Your task to perform on an android device: When is my next appointment? Image 0: 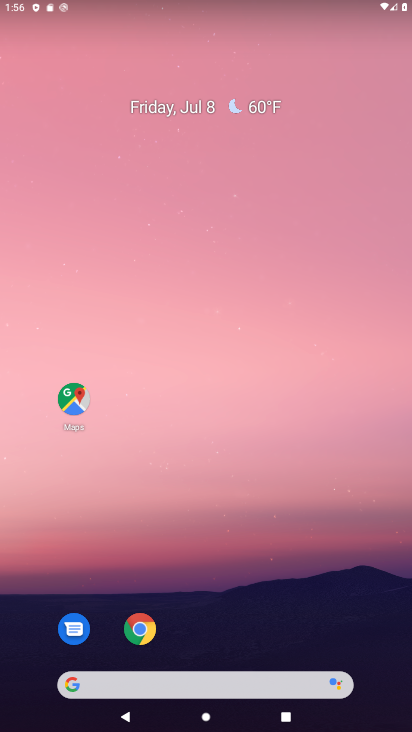
Step 0: drag from (220, 633) to (171, 172)
Your task to perform on an android device: When is my next appointment? Image 1: 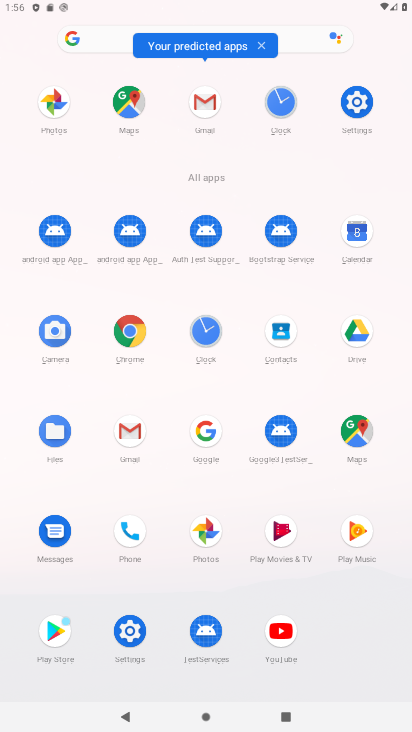
Step 1: click (344, 251)
Your task to perform on an android device: When is my next appointment? Image 2: 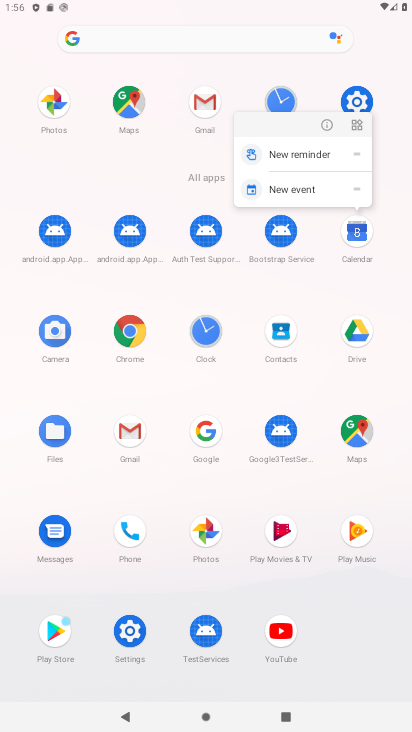
Step 2: click (360, 233)
Your task to perform on an android device: When is my next appointment? Image 3: 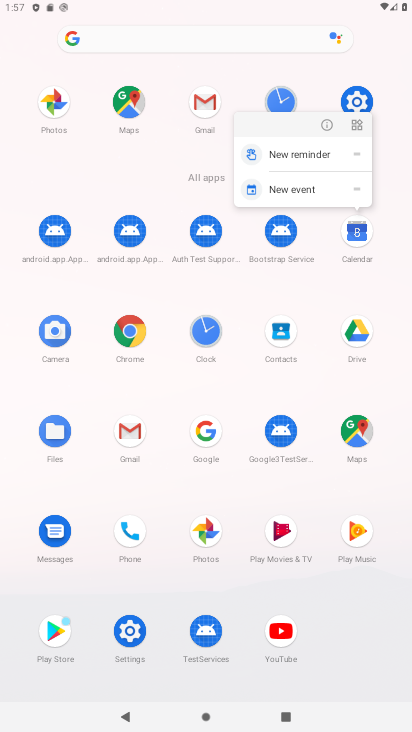
Step 3: click (356, 232)
Your task to perform on an android device: When is my next appointment? Image 4: 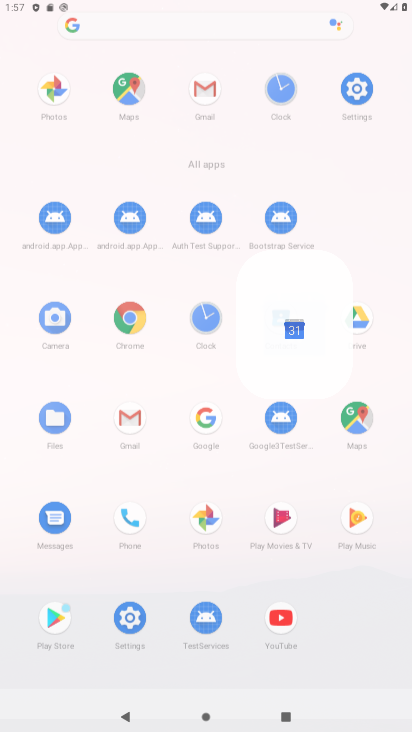
Step 4: click (348, 245)
Your task to perform on an android device: When is my next appointment? Image 5: 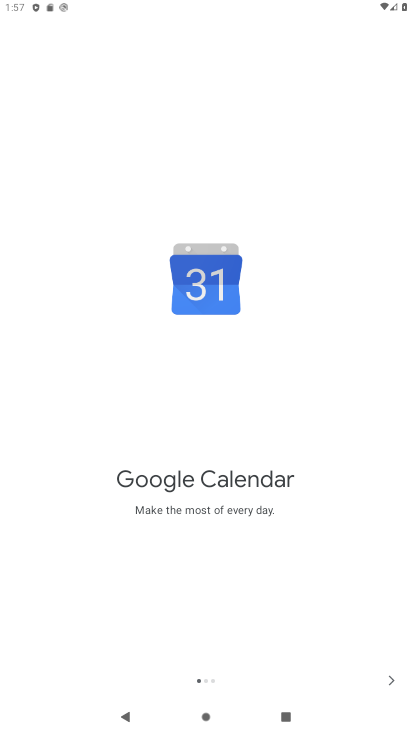
Step 5: click (383, 681)
Your task to perform on an android device: When is my next appointment? Image 6: 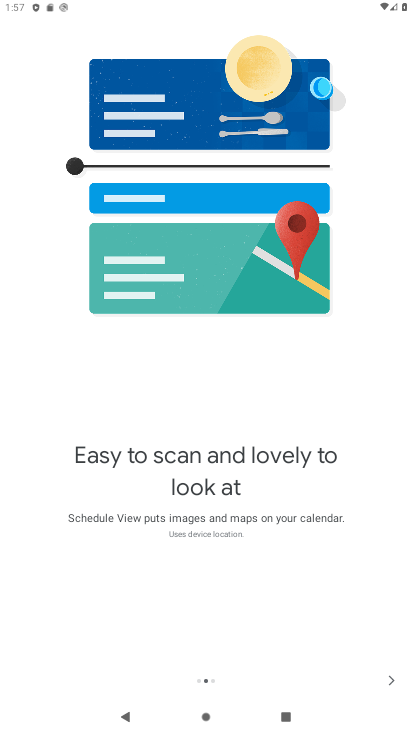
Step 6: click (383, 681)
Your task to perform on an android device: When is my next appointment? Image 7: 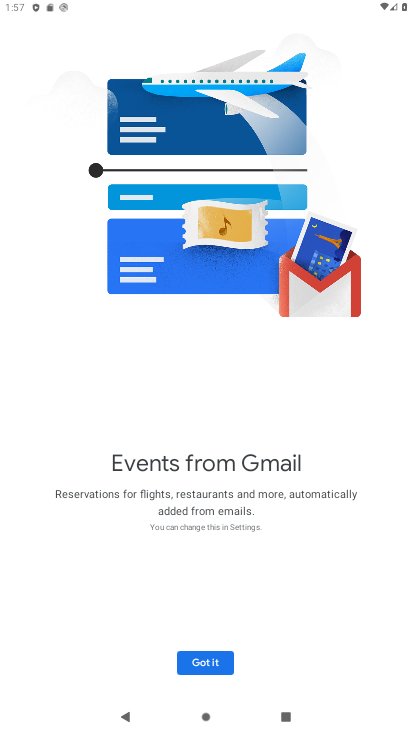
Step 7: click (220, 667)
Your task to perform on an android device: When is my next appointment? Image 8: 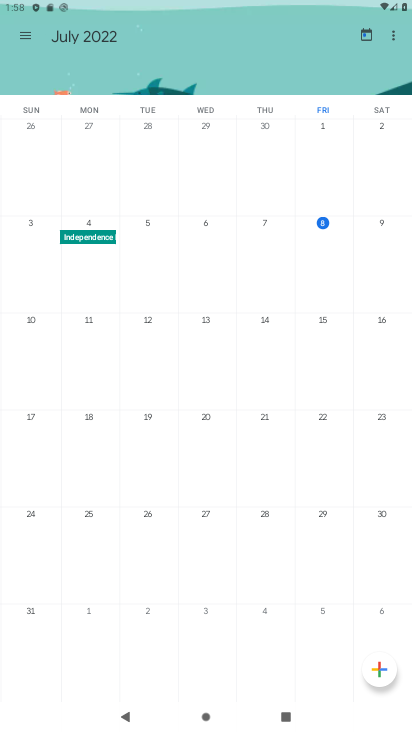
Step 8: click (21, 36)
Your task to perform on an android device: When is my next appointment? Image 9: 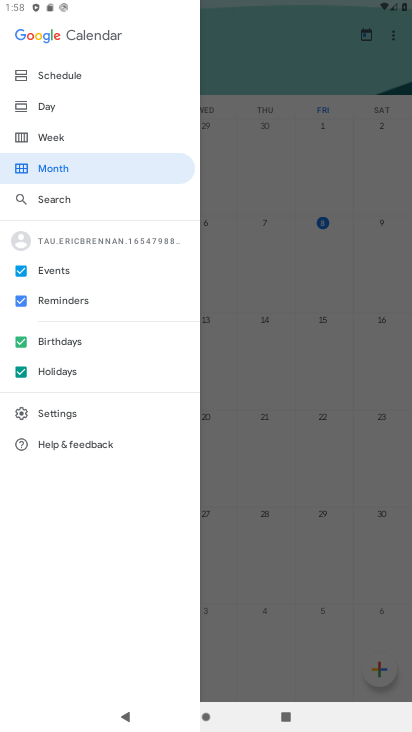
Step 9: click (70, 82)
Your task to perform on an android device: When is my next appointment? Image 10: 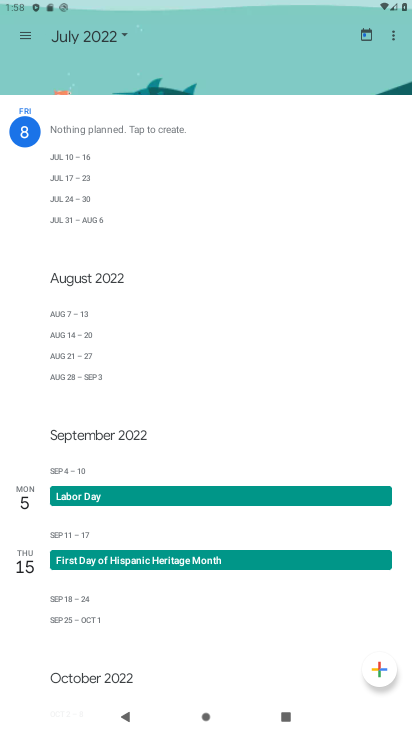
Step 10: task complete